Your task to perform on an android device: Go to Reddit.com Image 0: 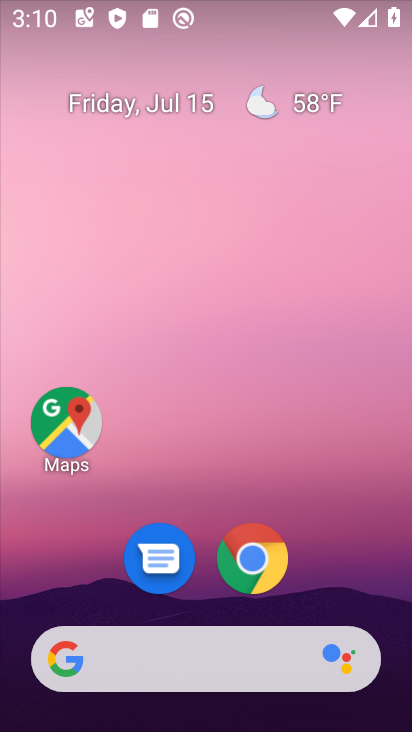
Step 0: drag from (362, 567) to (394, 71)
Your task to perform on an android device: Go to Reddit.com Image 1: 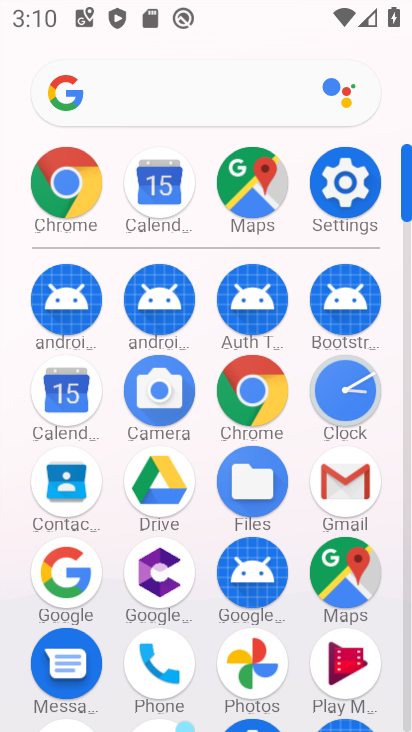
Step 1: click (269, 389)
Your task to perform on an android device: Go to Reddit.com Image 2: 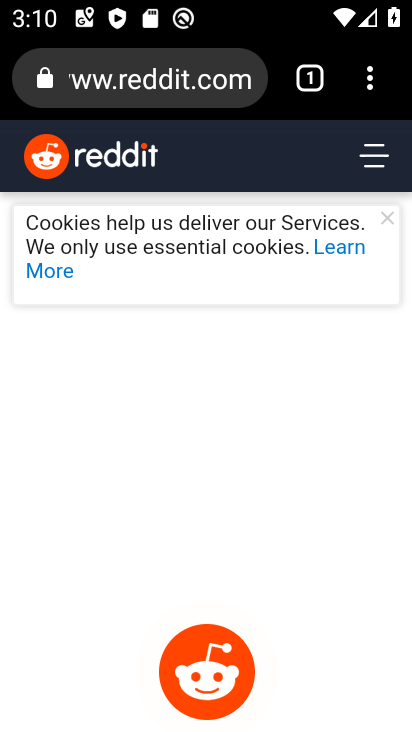
Step 2: task complete